Your task to perform on an android device: Go to eBay Image 0: 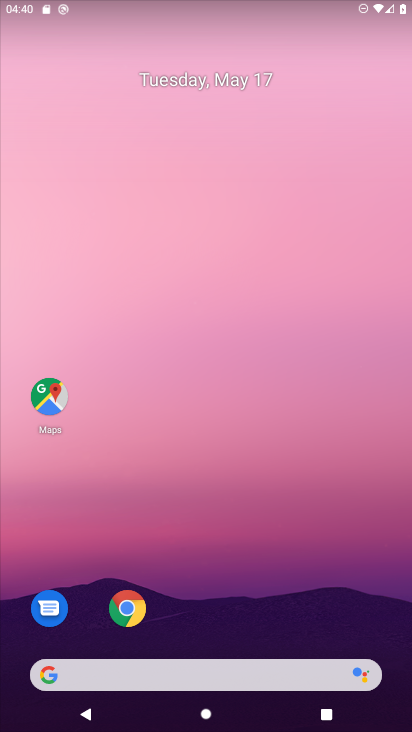
Step 0: drag from (194, 626) to (239, 332)
Your task to perform on an android device: Go to eBay Image 1: 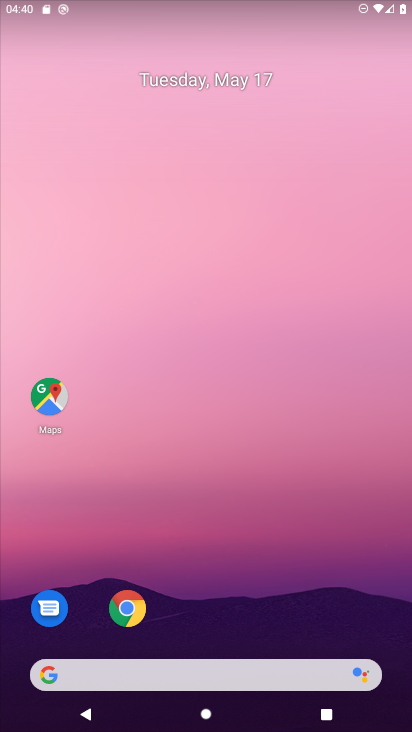
Step 1: click (130, 602)
Your task to perform on an android device: Go to eBay Image 2: 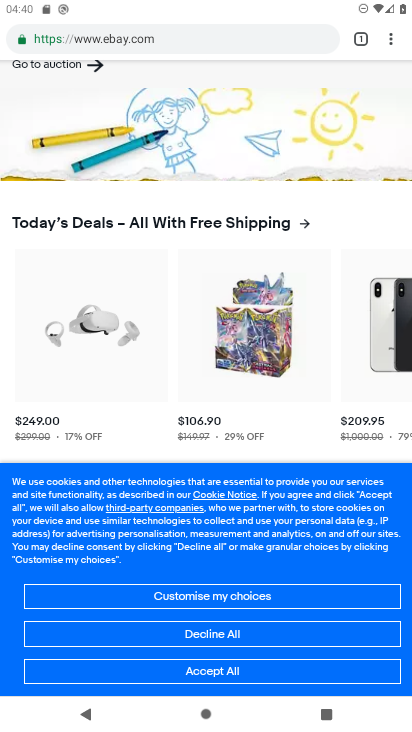
Step 2: task complete